Your task to perform on an android device: open a new tab in the chrome app Image 0: 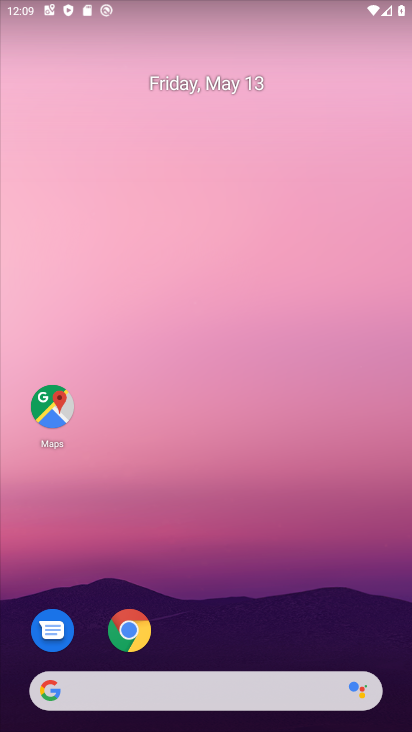
Step 0: drag from (317, 598) to (339, 42)
Your task to perform on an android device: open a new tab in the chrome app Image 1: 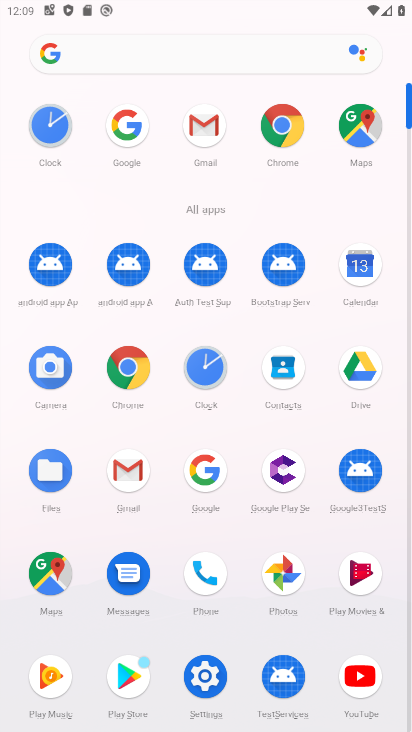
Step 1: click (132, 377)
Your task to perform on an android device: open a new tab in the chrome app Image 2: 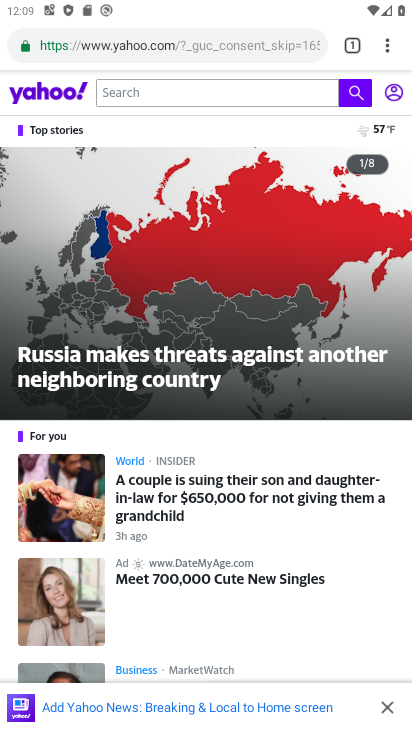
Step 2: click (350, 51)
Your task to perform on an android device: open a new tab in the chrome app Image 3: 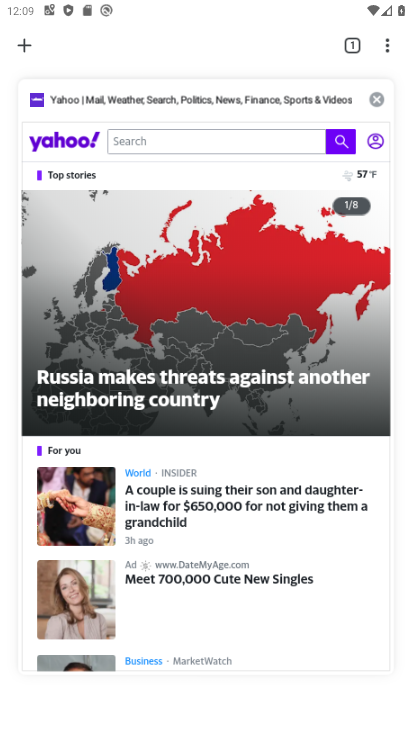
Step 3: click (33, 48)
Your task to perform on an android device: open a new tab in the chrome app Image 4: 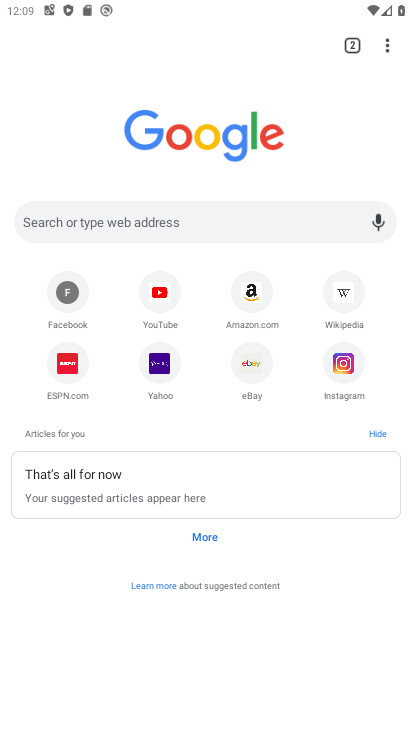
Step 4: task complete